Your task to perform on an android device: Open Android settings Image 0: 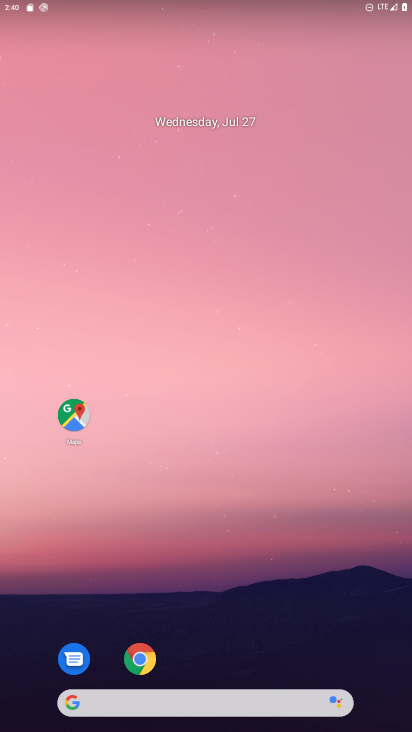
Step 0: drag from (214, 635) to (265, 354)
Your task to perform on an android device: Open Android settings Image 1: 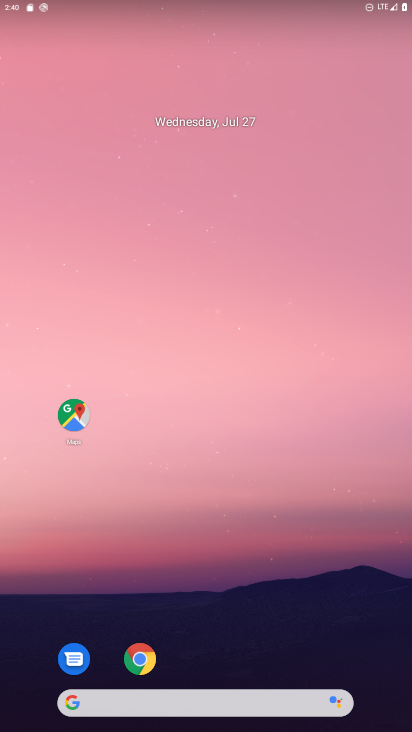
Step 1: click (219, 484)
Your task to perform on an android device: Open Android settings Image 2: 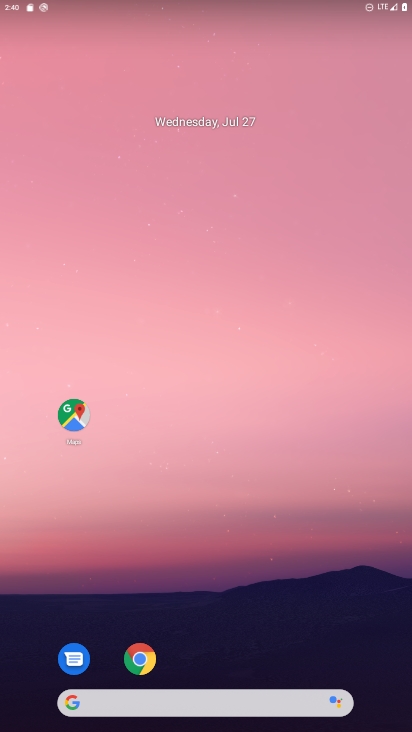
Step 2: drag from (255, 467) to (255, 361)
Your task to perform on an android device: Open Android settings Image 3: 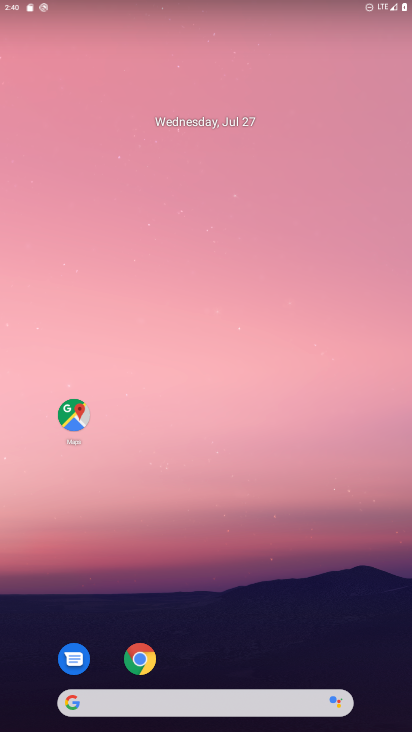
Step 3: drag from (250, 599) to (253, 396)
Your task to perform on an android device: Open Android settings Image 4: 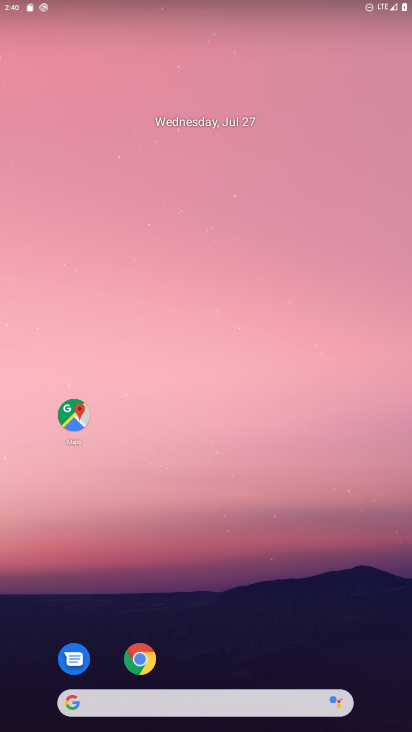
Step 4: drag from (278, 493) to (285, 380)
Your task to perform on an android device: Open Android settings Image 5: 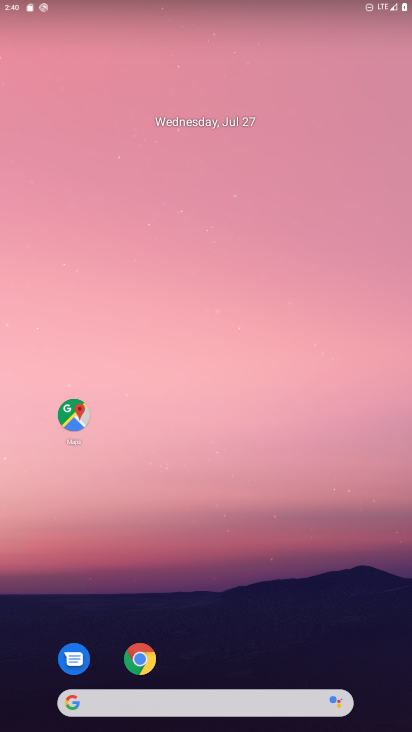
Step 5: drag from (248, 624) to (263, 504)
Your task to perform on an android device: Open Android settings Image 6: 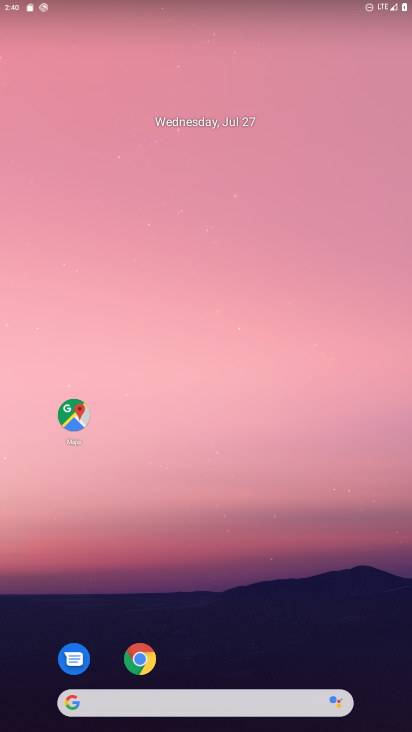
Step 6: drag from (223, 609) to (227, 492)
Your task to perform on an android device: Open Android settings Image 7: 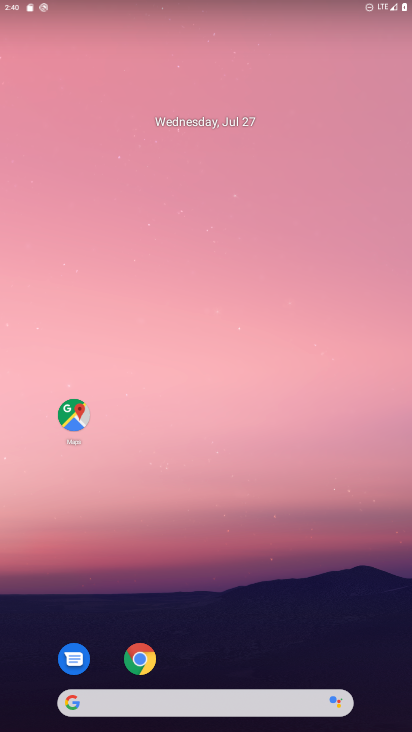
Step 7: click (250, 525)
Your task to perform on an android device: Open Android settings Image 8: 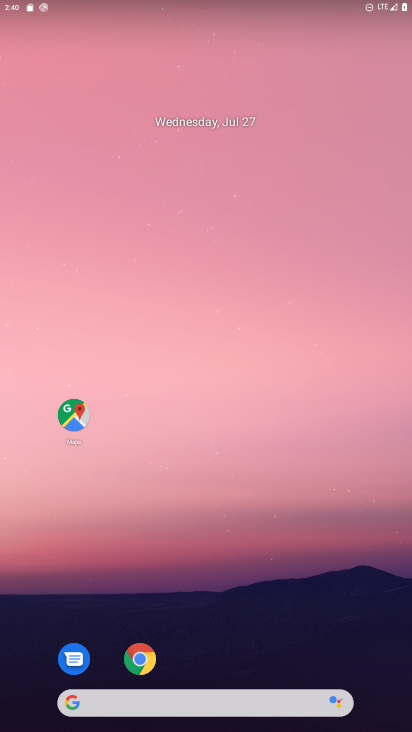
Step 8: drag from (278, 640) to (282, 349)
Your task to perform on an android device: Open Android settings Image 9: 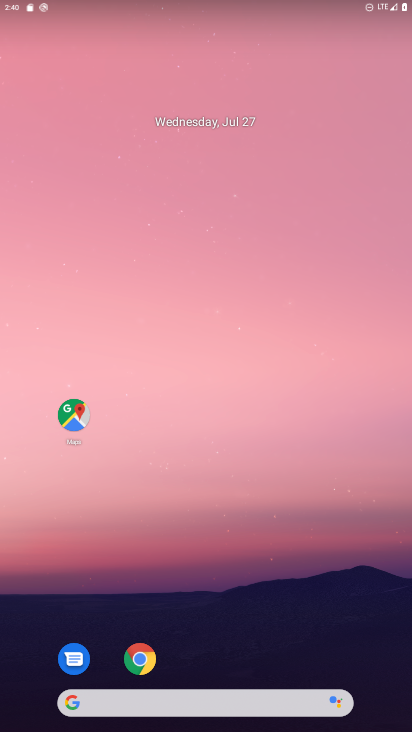
Step 9: drag from (255, 650) to (305, 318)
Your task to perform on an android device: Open Android settings Image 10: 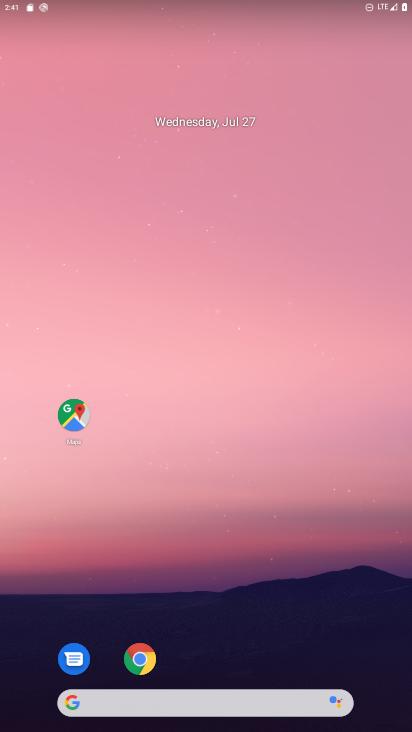
Step 10: drag from (206, 626) to (230, 467)
Your task to perform on an android device: Open Android settings Image 11: 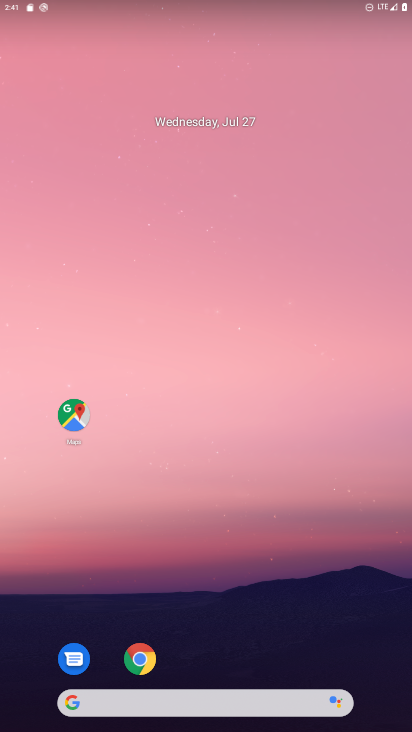
Step 11: drag from (273, 615) to (273, 185)
Your task to perform on an android device: Open Android settings Image 12: 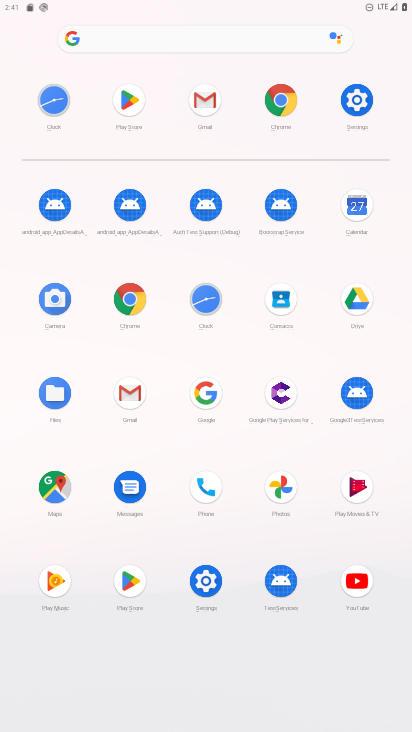
Step 12: click (214, 578)
Your task to perform on an android device: Open Android settings Image 13: 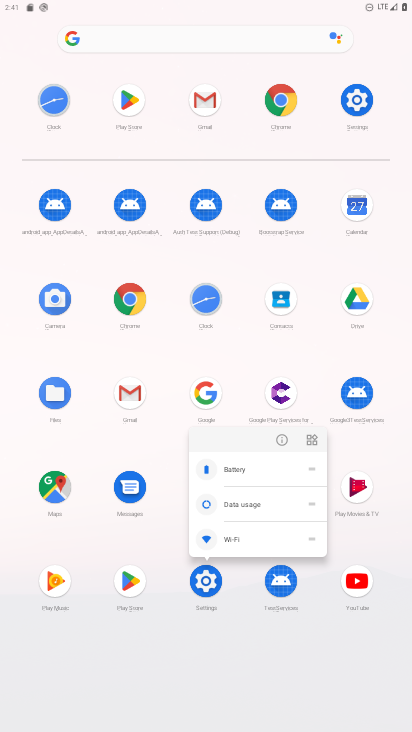
Step 13: click (211, 571)
Your task to perform on an android device: Open Android settings Image 14: 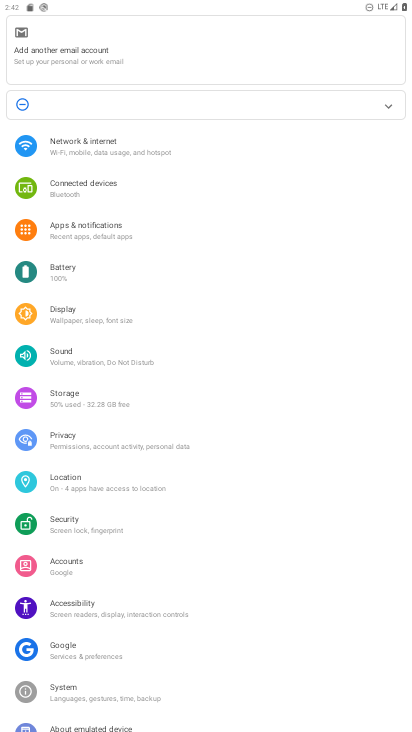
Step 14: task complete